Your task to perform on an android device: Open Android settings Image 0: 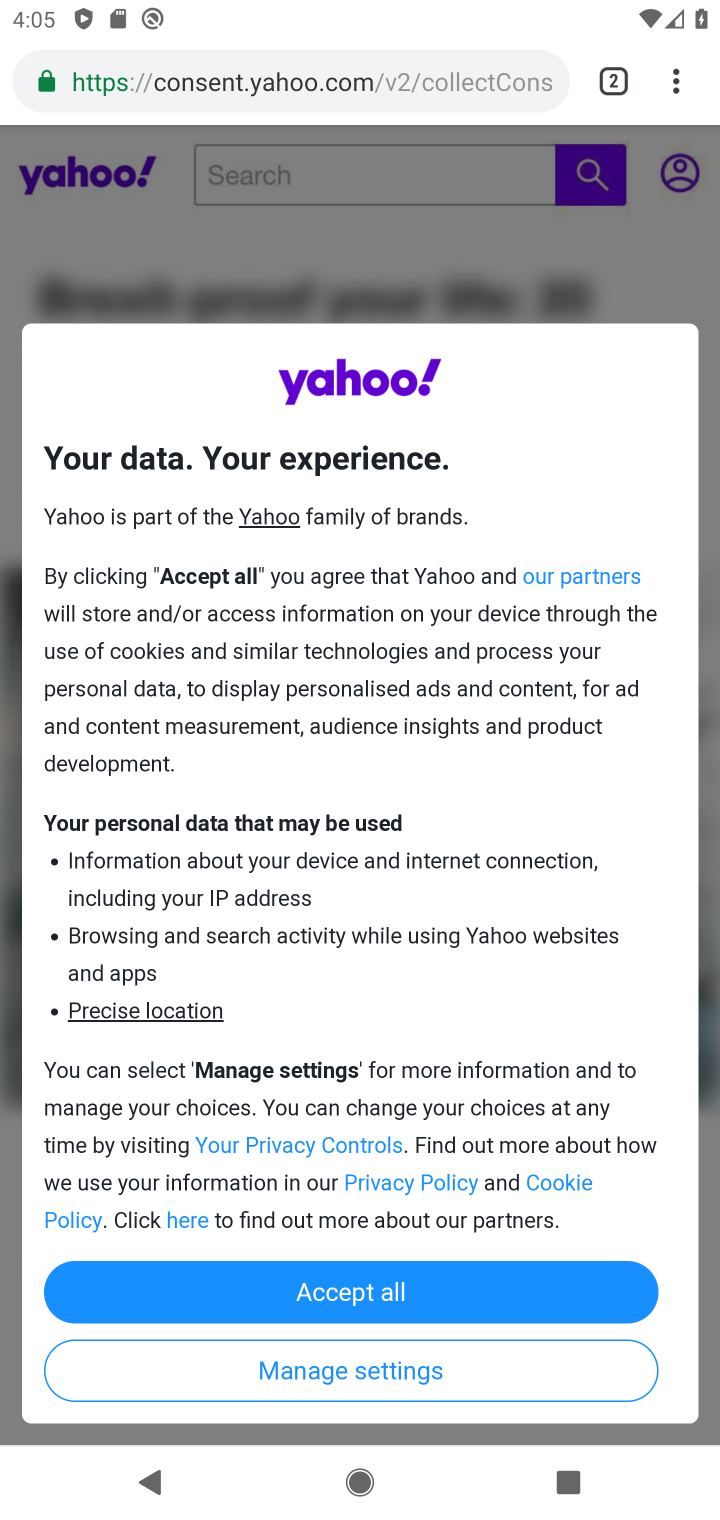
Step 0: press back button
Your task to perform on an android device: Open Android settings Image 1: 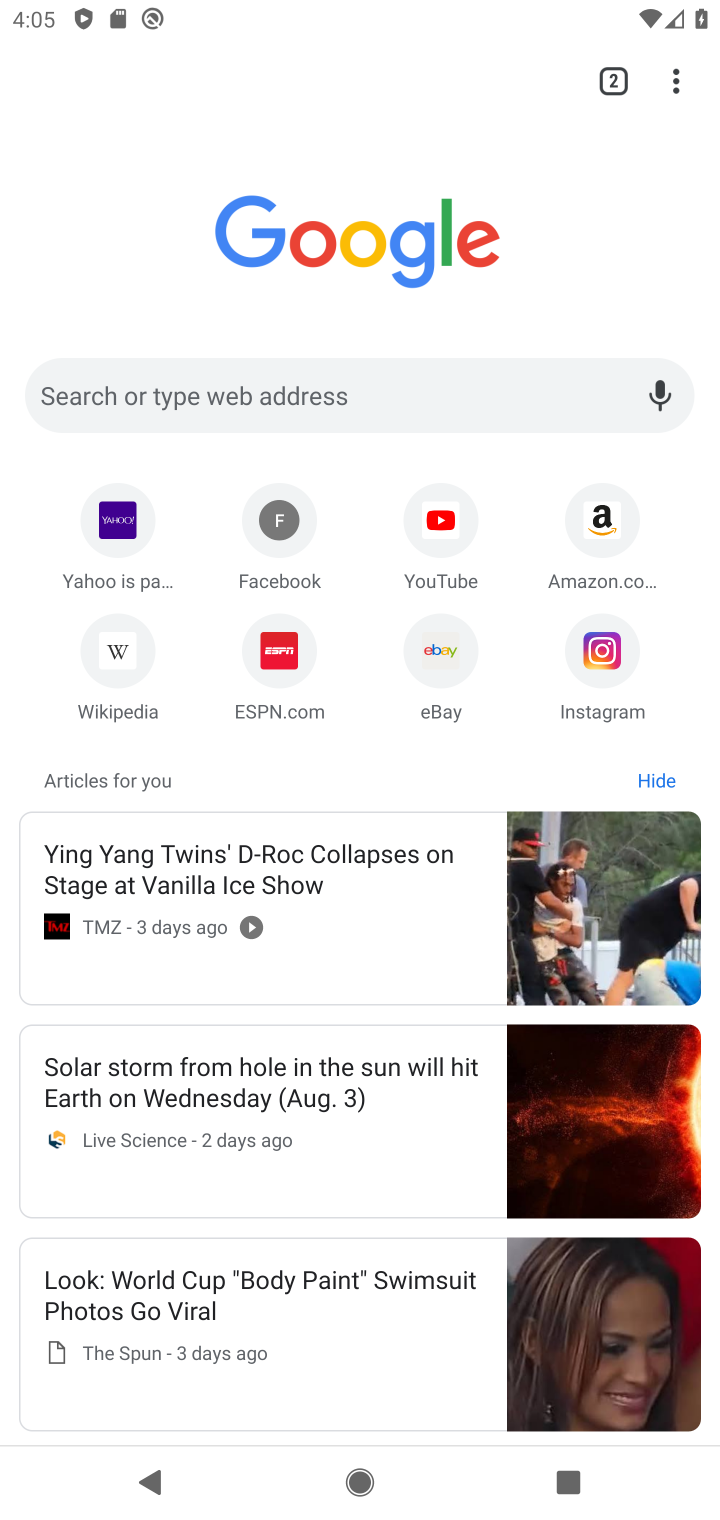
Step 1: press back button
Your task to perform on an android device: Open Android settings Image 2: 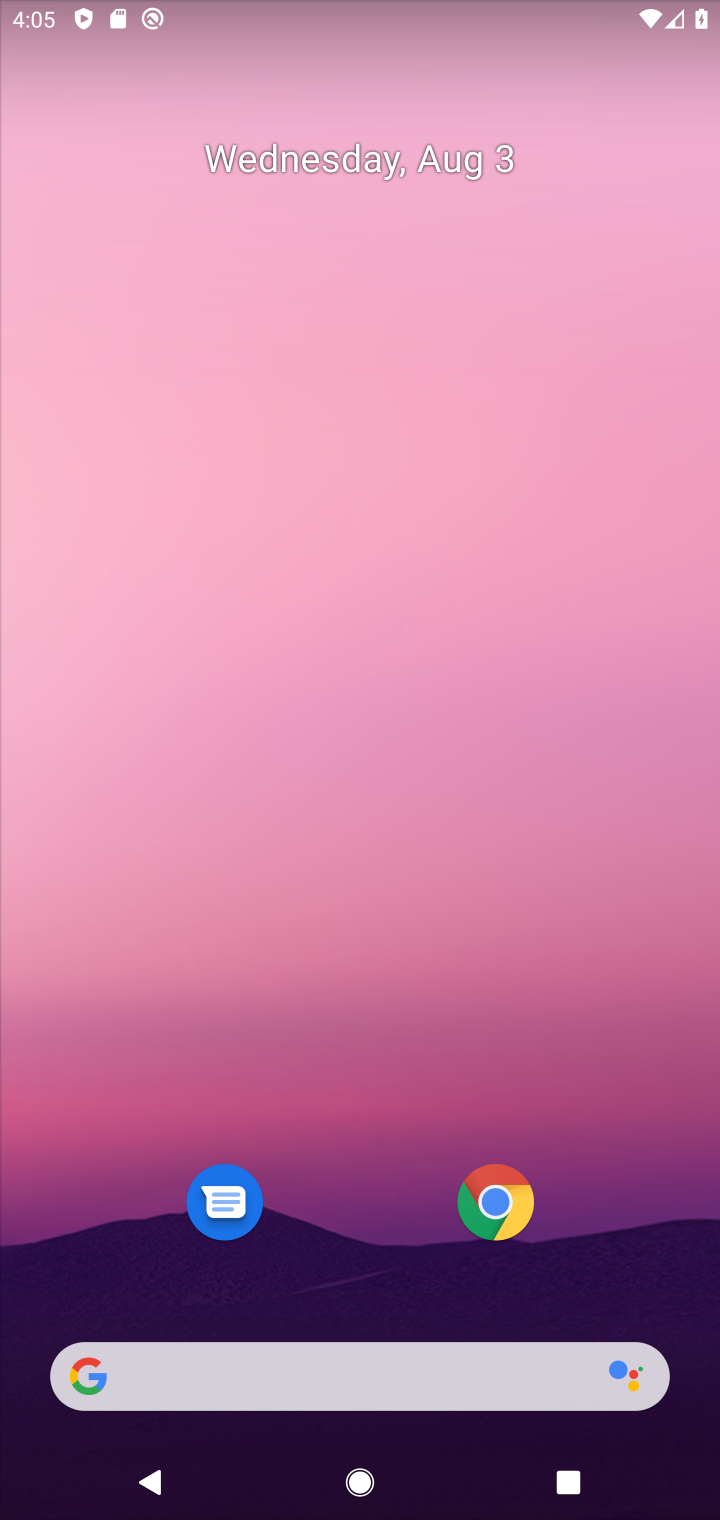
Step 2: drag from (121, 1218) to (397, 11)
Your task to perform on an android device: Open Android settings Image 3: 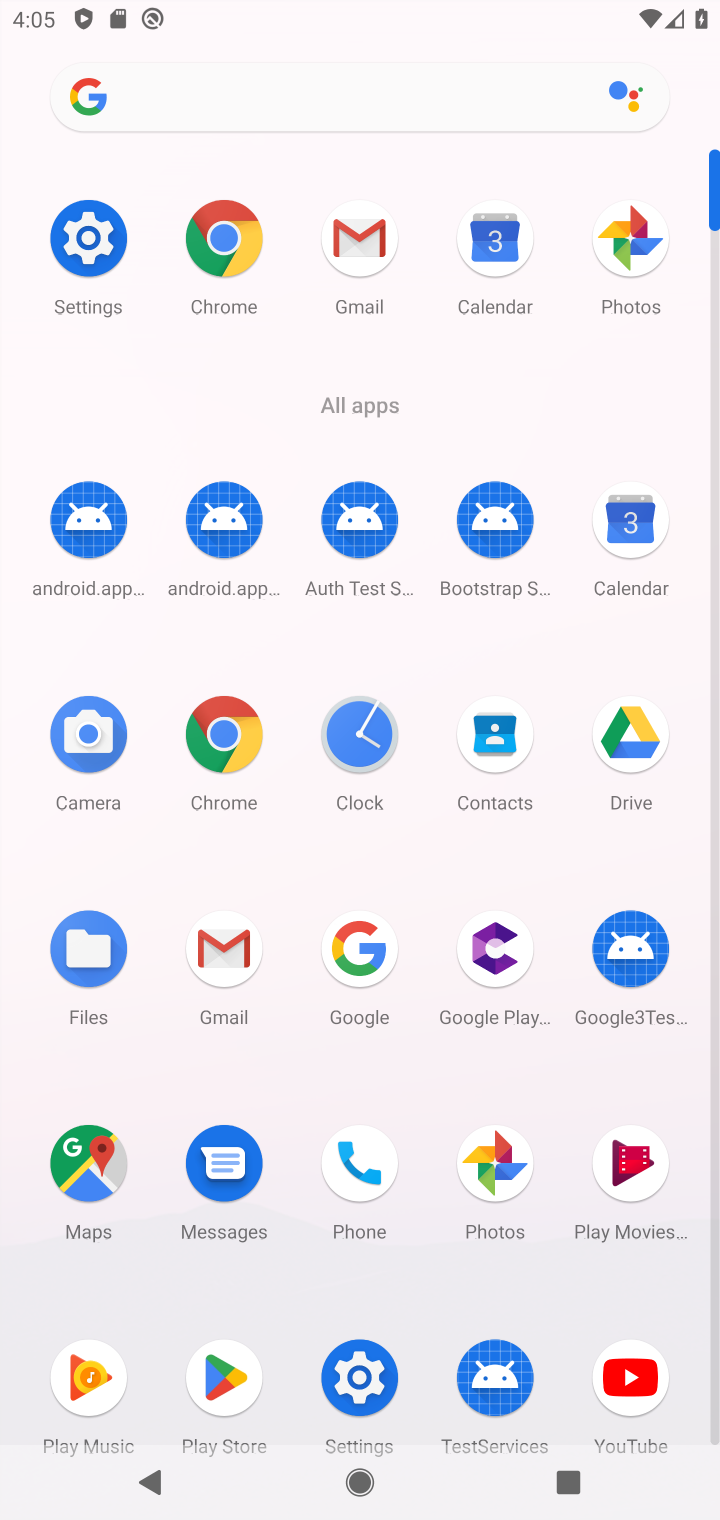
Step 3: click (92, 229)
Your task to perform on an android device: Open Android settings Image 4: 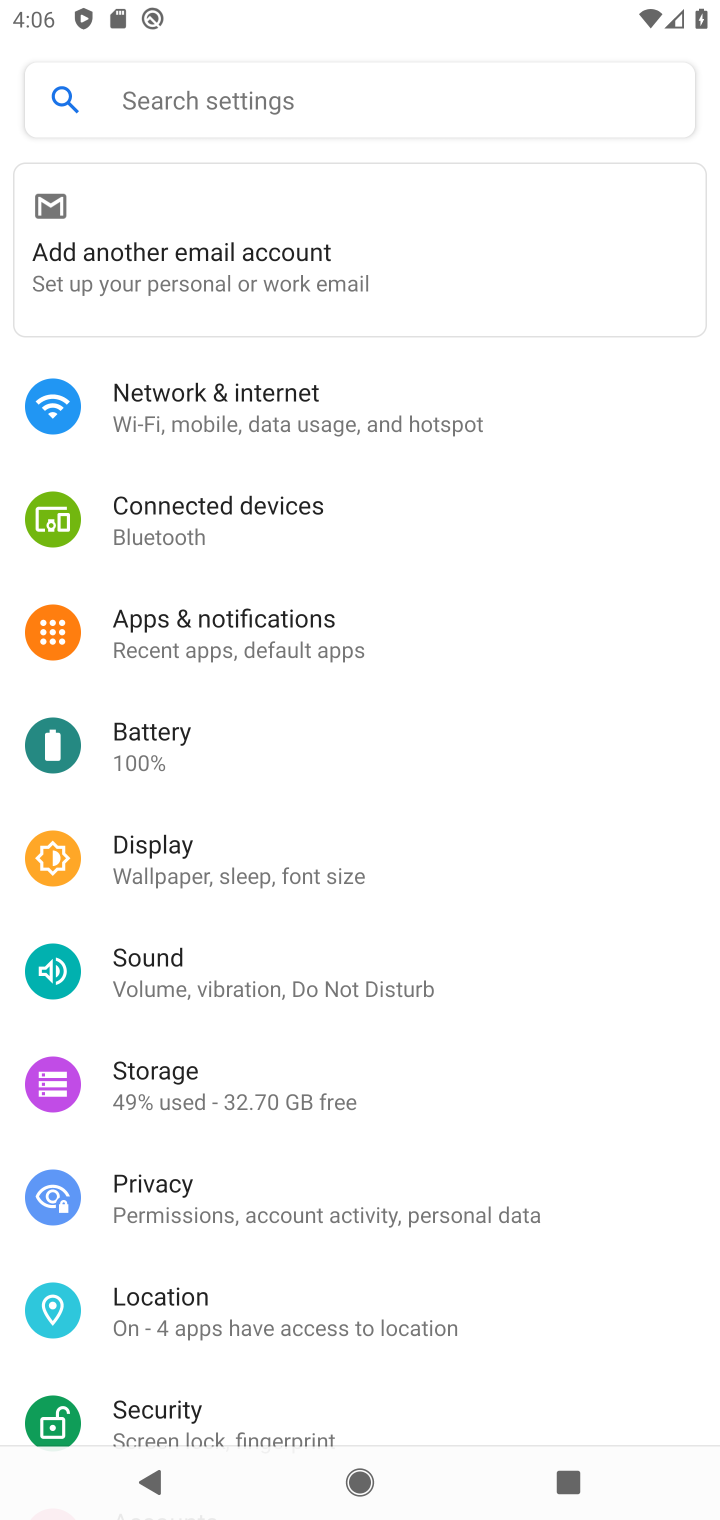
Step 4: drag from (227, 1331) to (319, 152)
Your task to perform on an android device: Open Android settings Image 5: 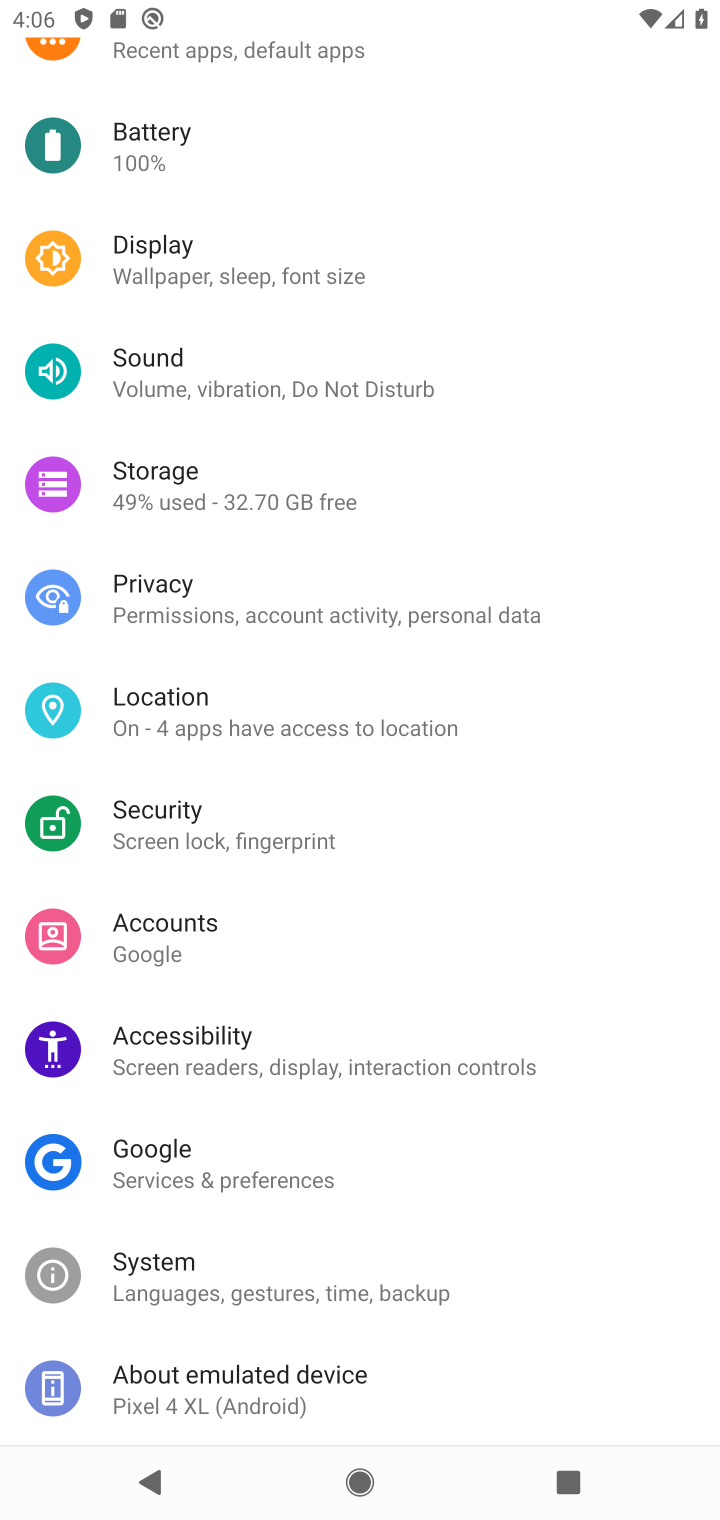
Step 5: drag from (241, 1352) to (316, 264)
Your task to perform on an android device: Open Android settings Image 6: 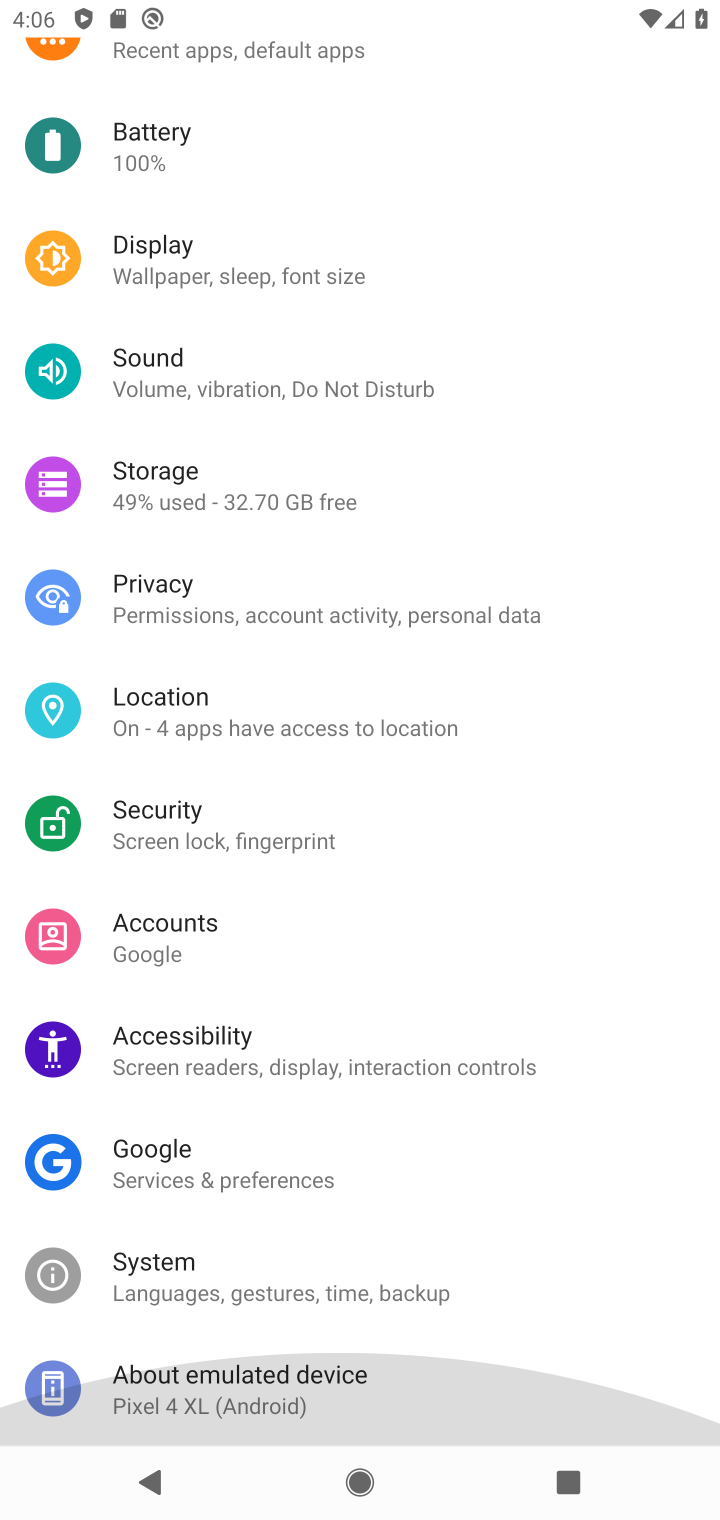
Step 6: click (250, 1387)
Your task to perform on an android device: Open Android settings Image 7: 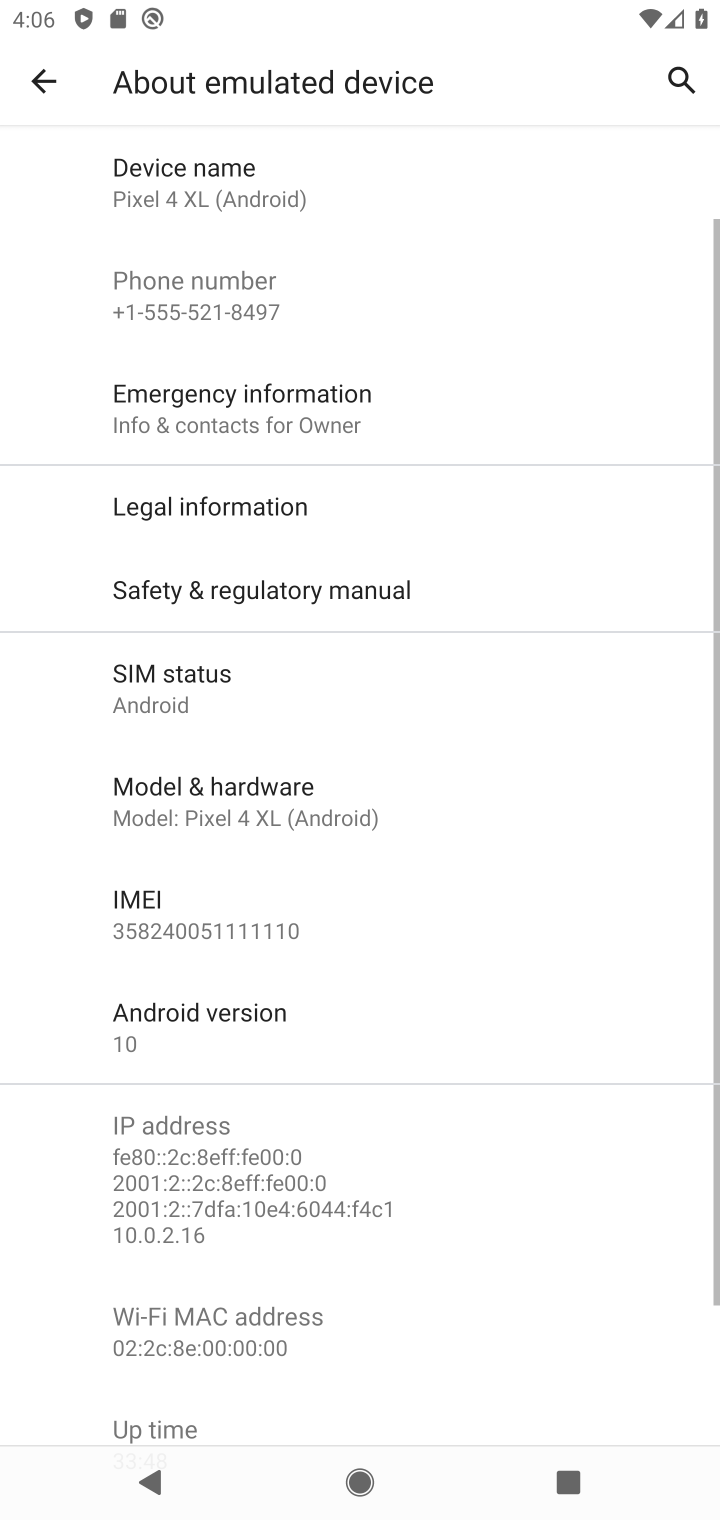
Step 7: task complete